Your task to perform on an android device: toggle sleep mode Image 0: 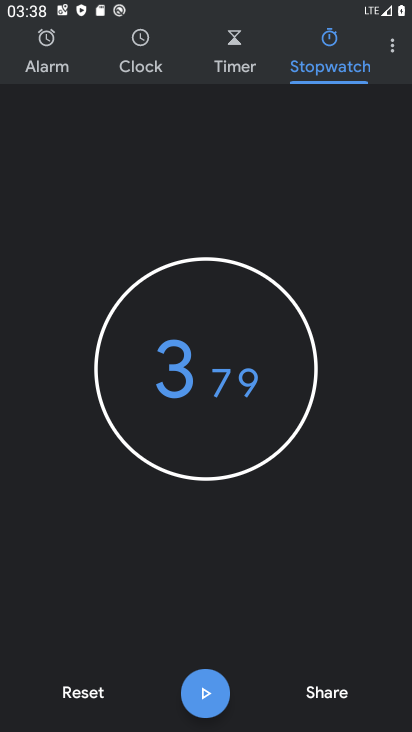
Step 0: press back button
Your task to perform on an android device: toggle sleep mode Image 1: 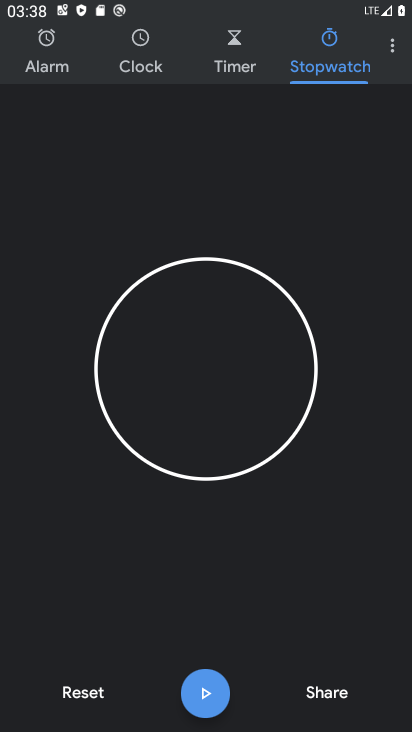
Step 1: press back button
Your task to perform on an android device: toggle sleep mode Image 2: 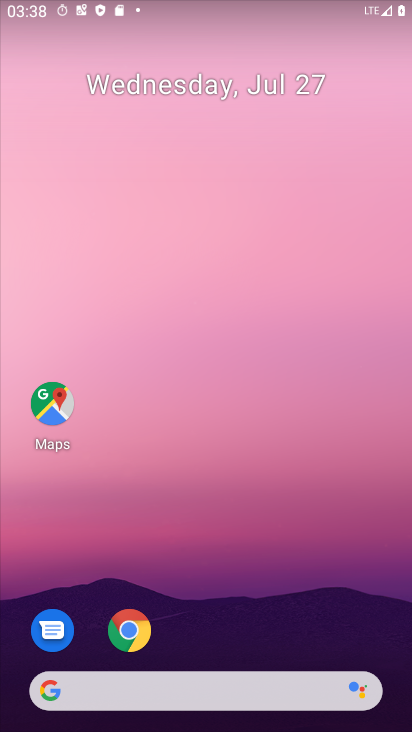
Step 2: drag from (245, 601) to (143, 25)
Your task to perform on an android device: toggle sleep mode Image 3: 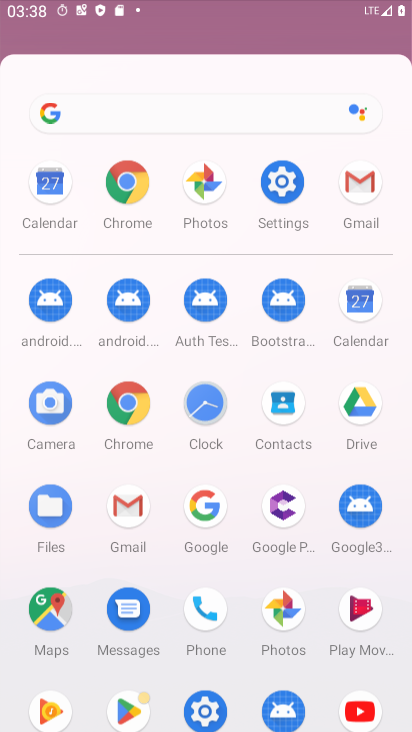
Step 3: drag from (189, 294) to (201, 12)
Your task to perform on an android device: toggle sleep mode Image 4: 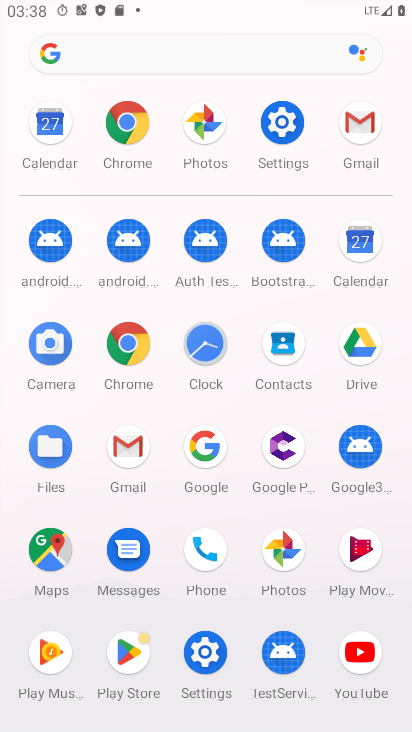
Step 4: click (205, 665)
Your task to perform on an android device: toggle sleep mode Image 5: 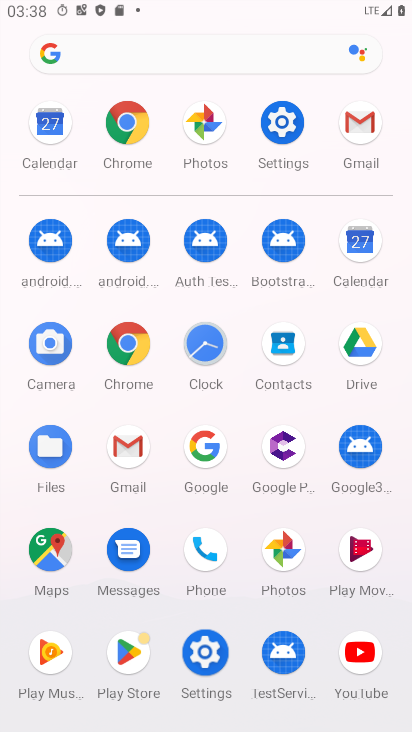
Step 5: click (205, 665)
Your task to perform on an android device: toggle sleep mode Image 6: 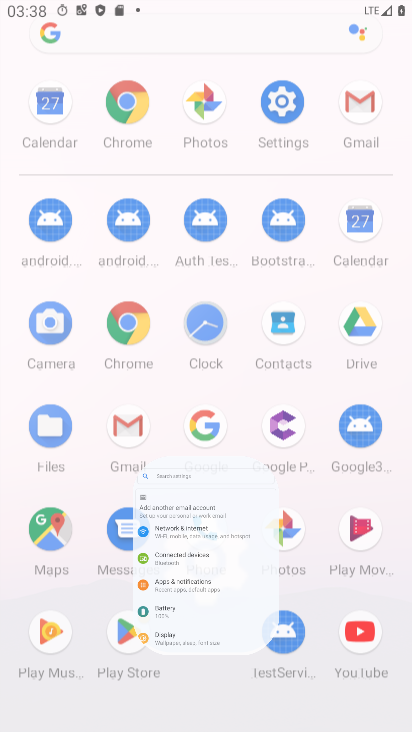
Step 6: click (205, 665)
Your task to perform on an android device: toggle sleep mode Image 7: 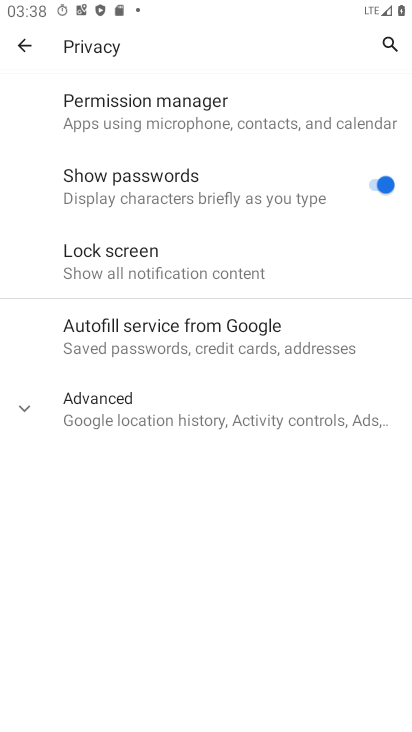
Step 7: click (23, 48)
Your task to perform on an android device: toggle sleep mode Image 8: 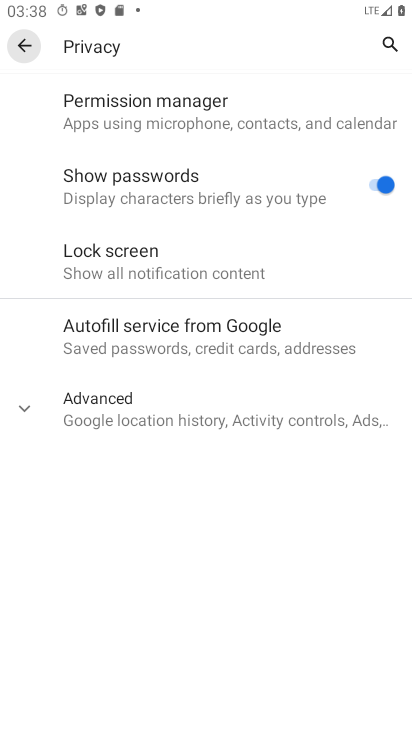
Step 8: click (23, 48)
Your task to perform on an android device: toggle sleep mode Image 9: 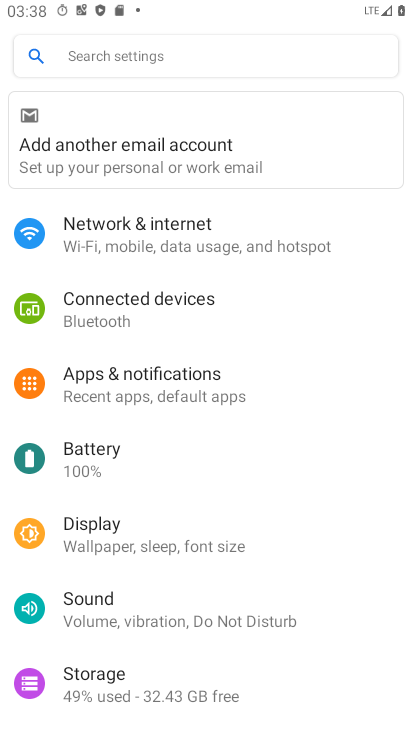
Step 9: click (112, 545)
Your task to perform on an android device: toggle sleep mode Image 10: 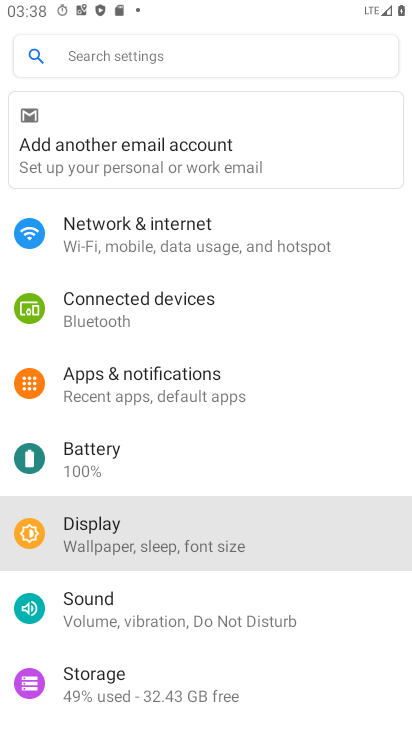
Step 10: click (113, 536)
Your task to perform on an android device: toggle sleep mode Image 11: 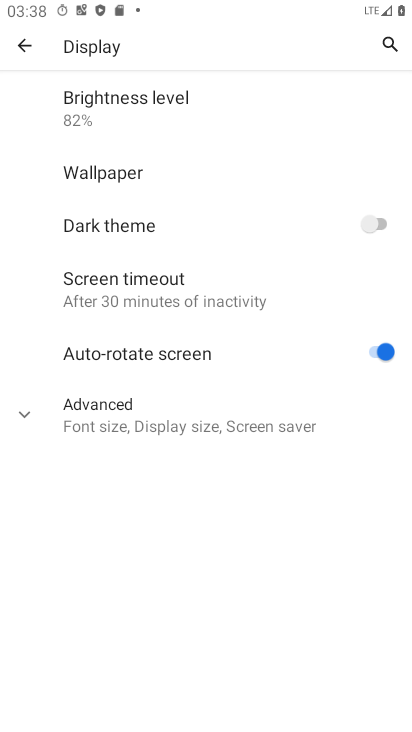
Step 11: click (132, 296)
Your task to perform on an android device: toggle sleep mode Image 12: 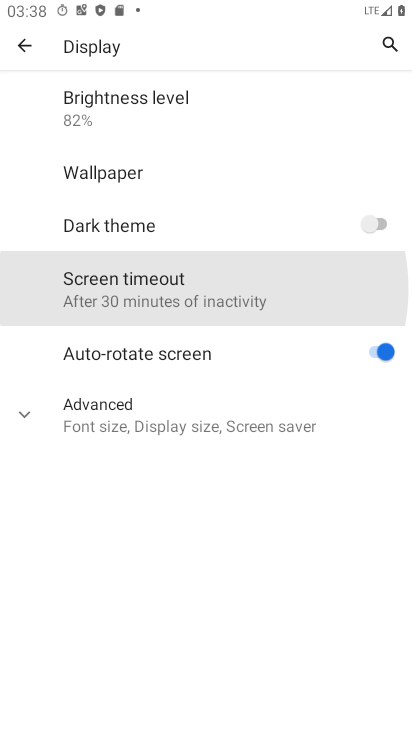
Step 12: click (133, 296)
Your task to perform on an android device: toggle sleep mode Image 13: 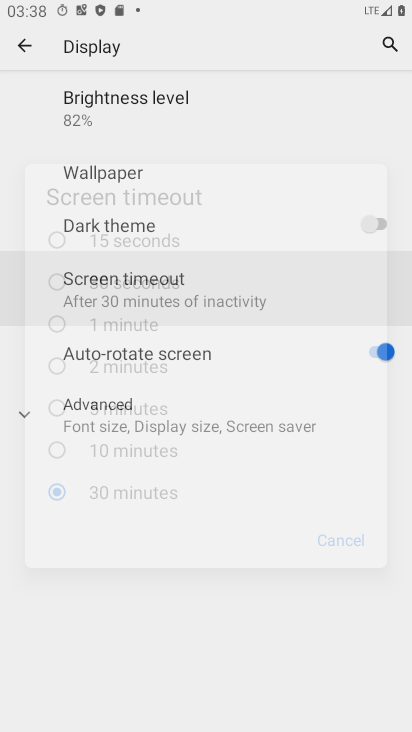
Step 13: click (134, 296)
Your task to perform on an android device: toggle sleep mode Image 14: 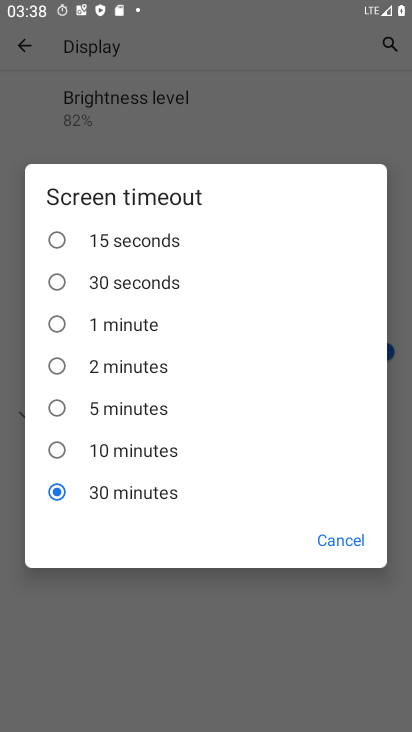
Step 14: click (55, 369)
Your task to perform on an android device: toggle sleep mode Image 15: 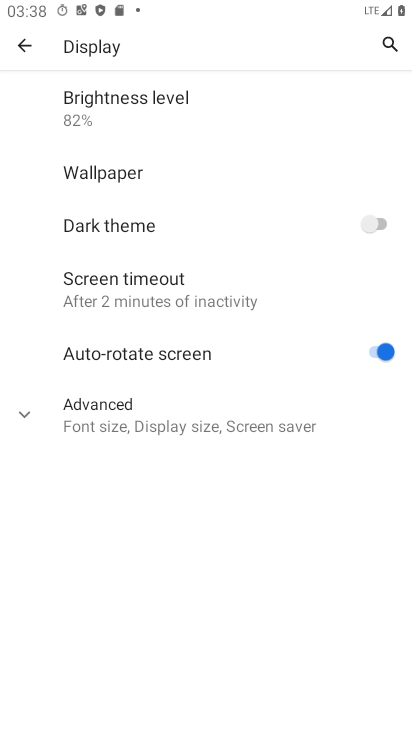
Step 15: task complete